Your task to perform on an android device: open app "Indeed Job Search" (install if not already installed) Image 0: 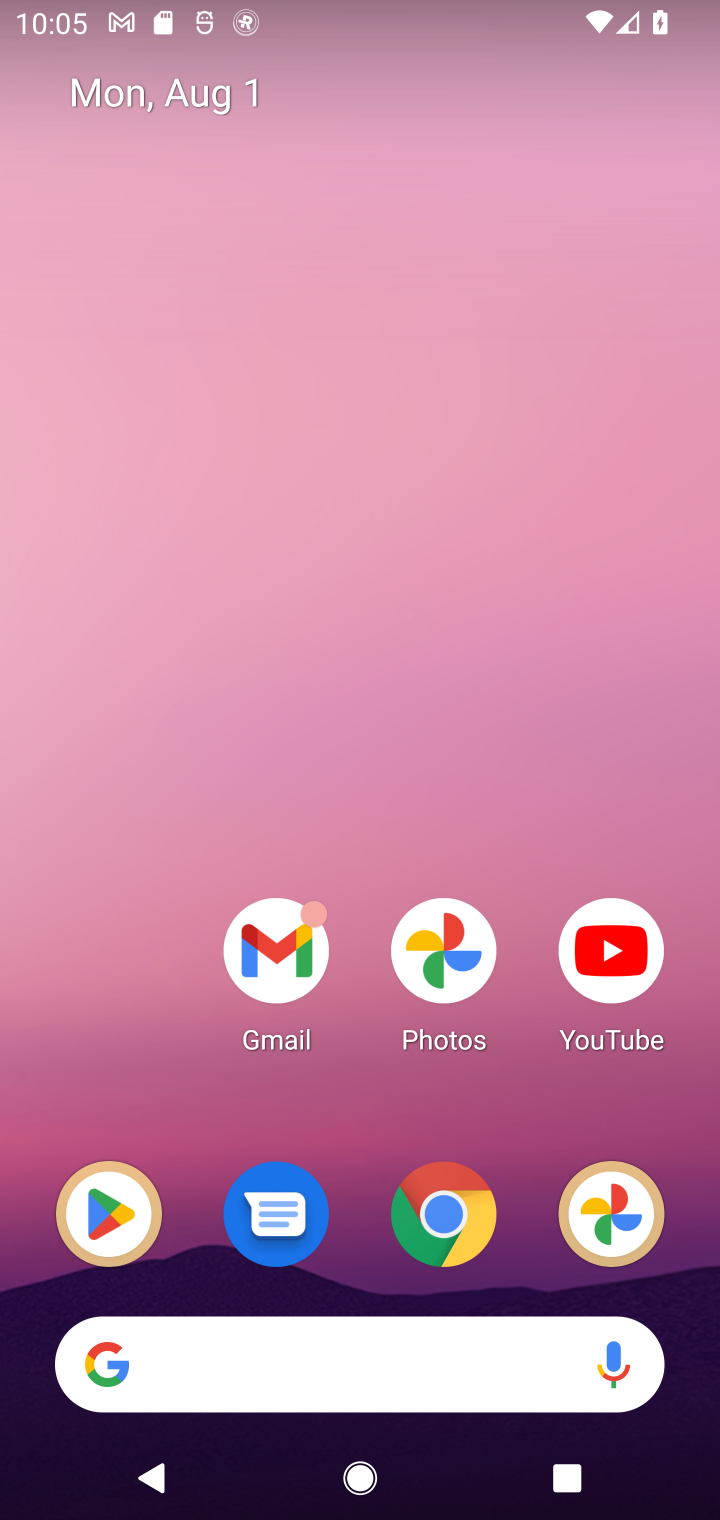
Step 0: click (111, 1223)
Your task to perform on an android device: open app "Indeed Job Search" (install if not already installed) Image 1: 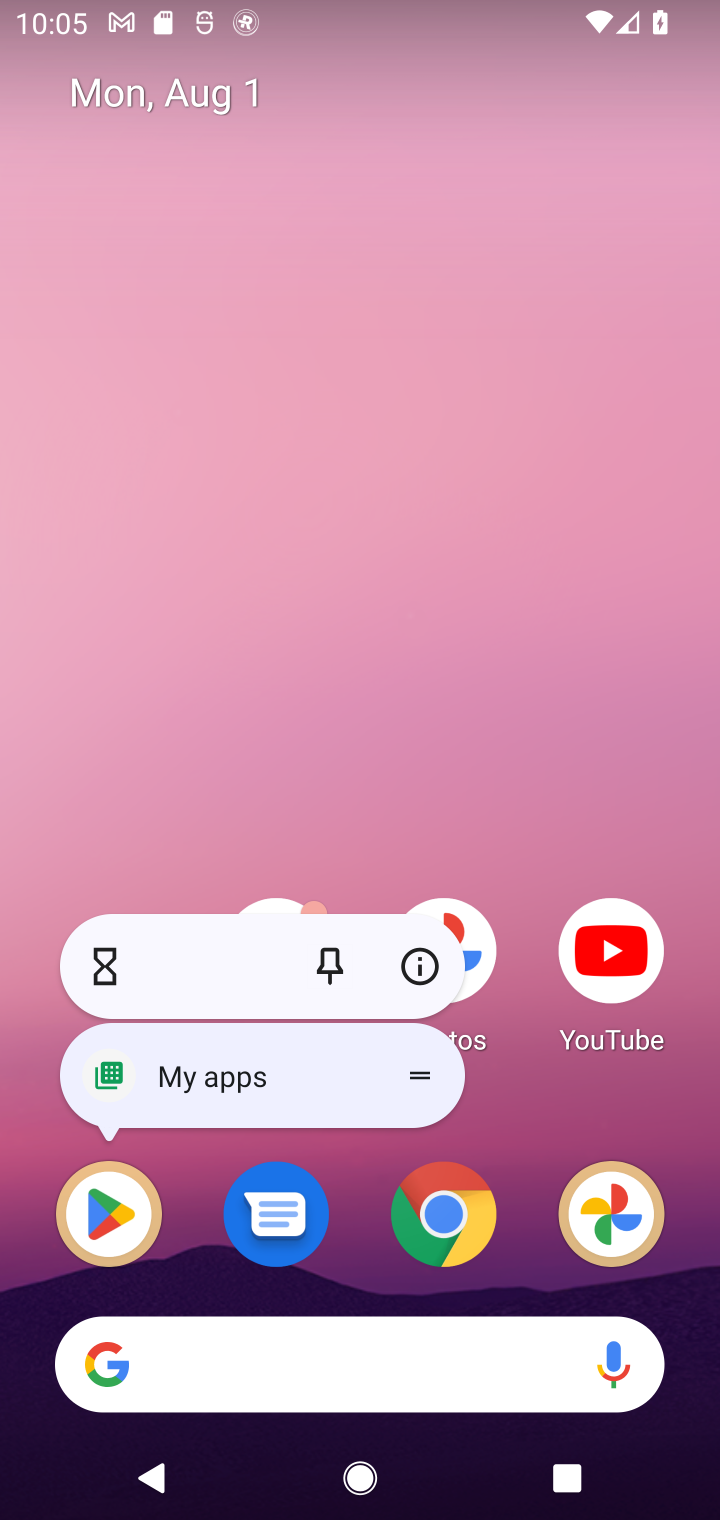
Step 1: click (111, 1223)
Your task to perform on an android device: open app "Indeed Job Search" (install if not already installed) Image 2: 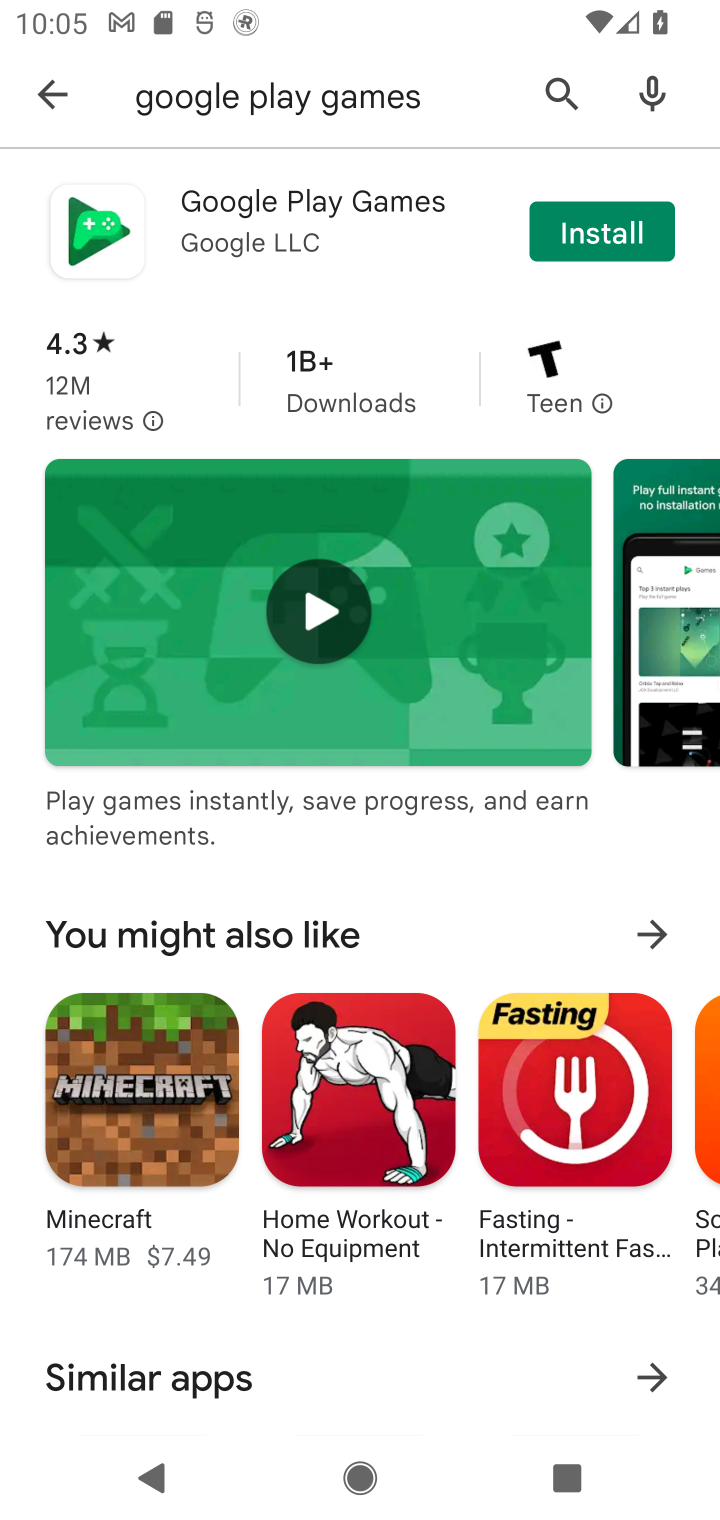
Step 2: click (563, 76)
Your task to perform on an android device: open app "Indeed Job Search" (install if not already installed) Image 3: 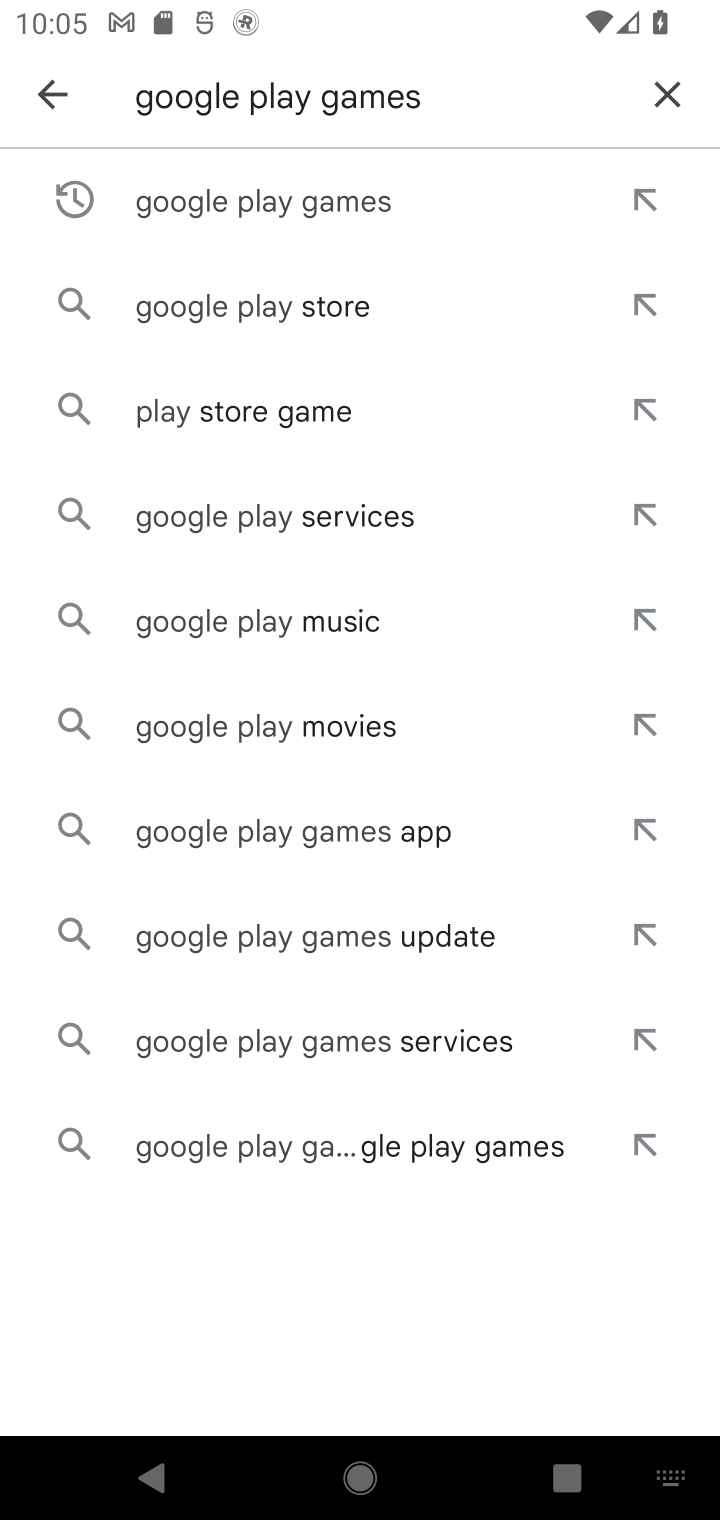
Step 3: click (652, 77)
Your task to perform on an android device: open app "Indeed Job Search" (install if not already installed) Image 4: 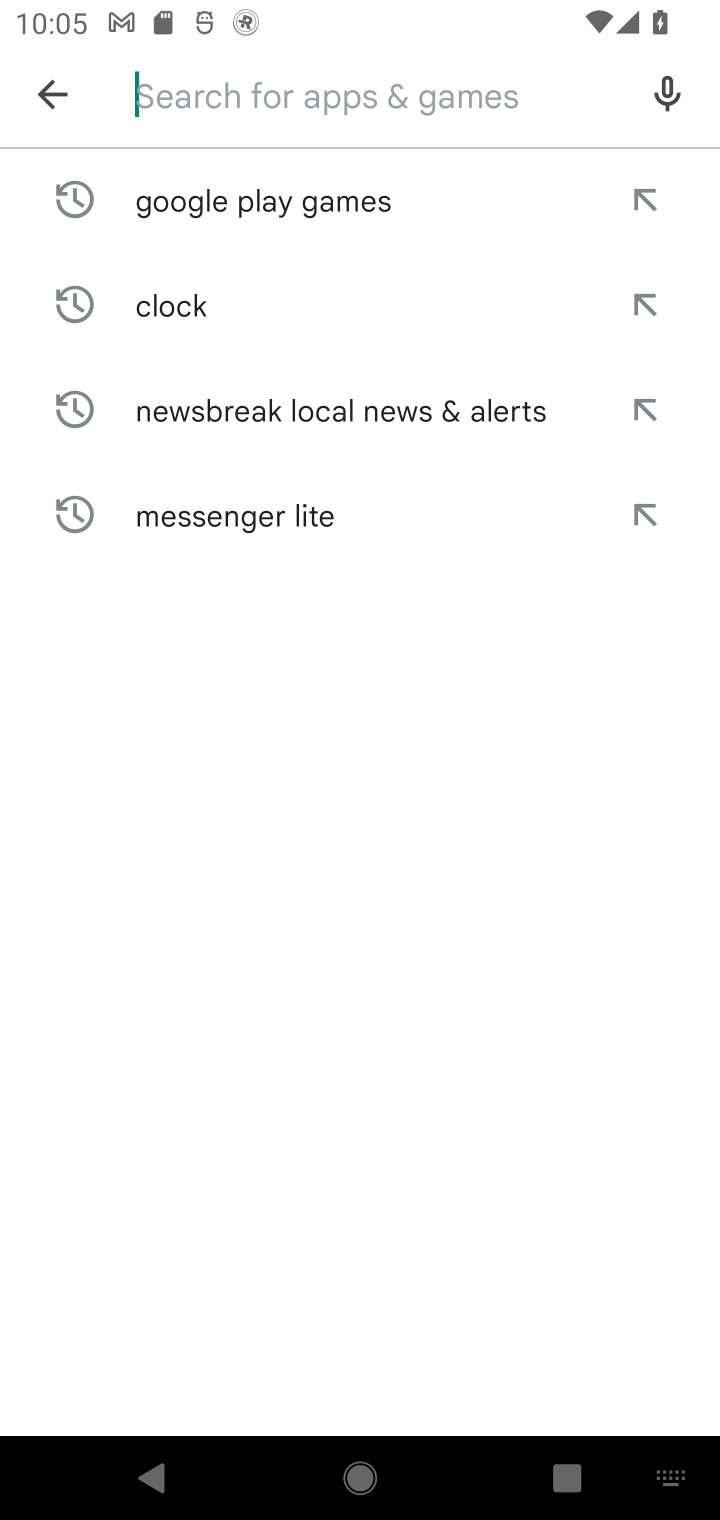
Step 4: type "Indeed Job Search"
Your task to perform on an android device: open app "Indeed Job Search" (install if not already installed) Image 5: 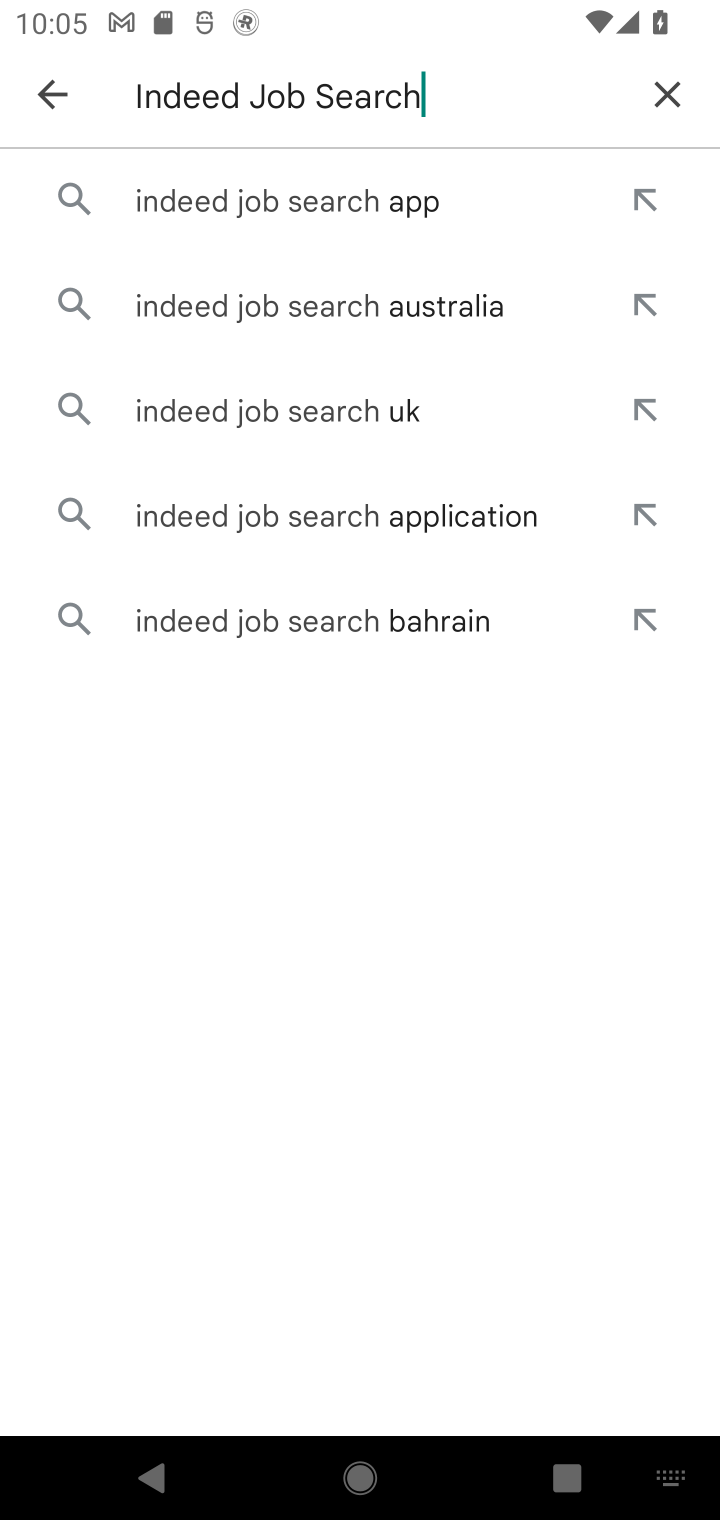
Step 5: click (185, 184)
Your task to perform on an android device: open app "Indeed Job Search" (install if not already installed) Image 6: 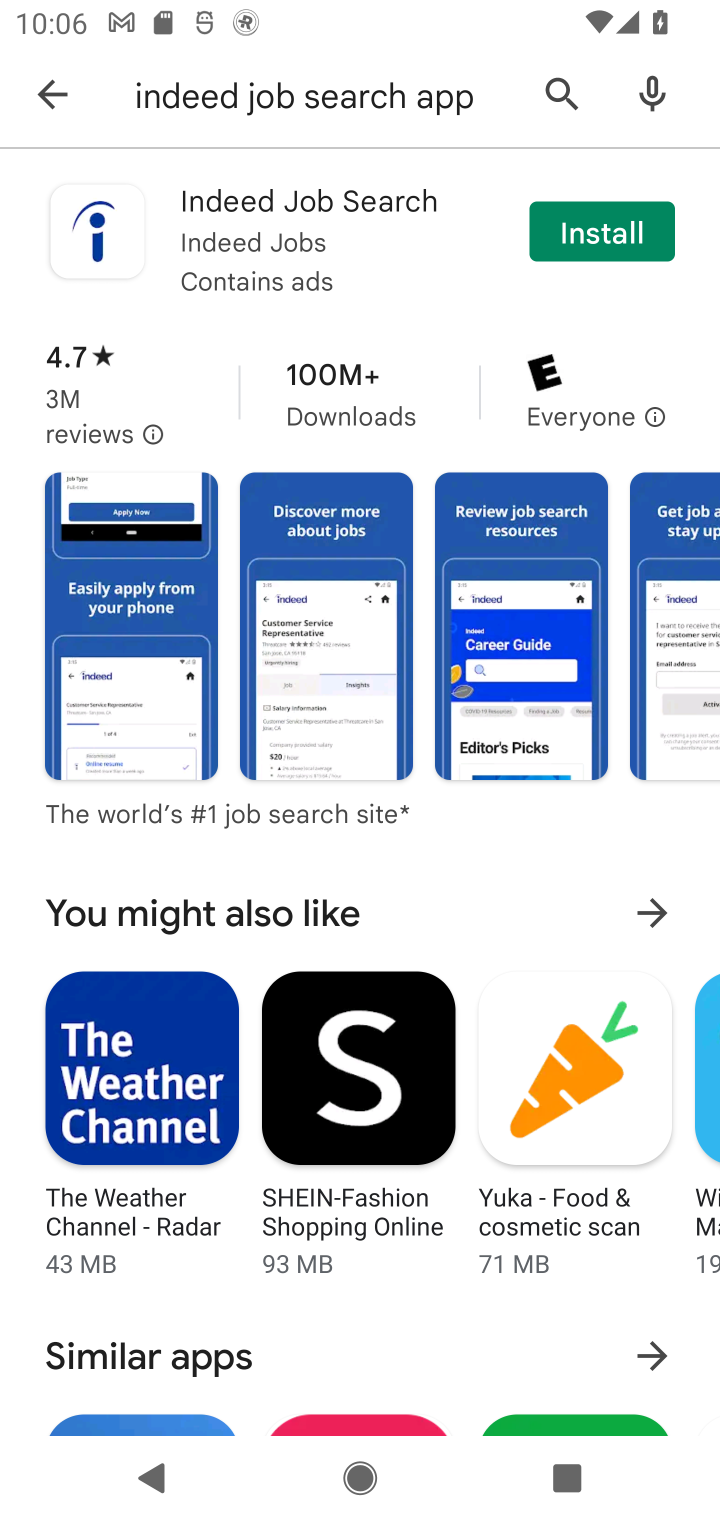
Step 6: click (578, 226)
Your task to perform on an android device: open app "Indeed Job Search" (install if not already installed) Image 7: 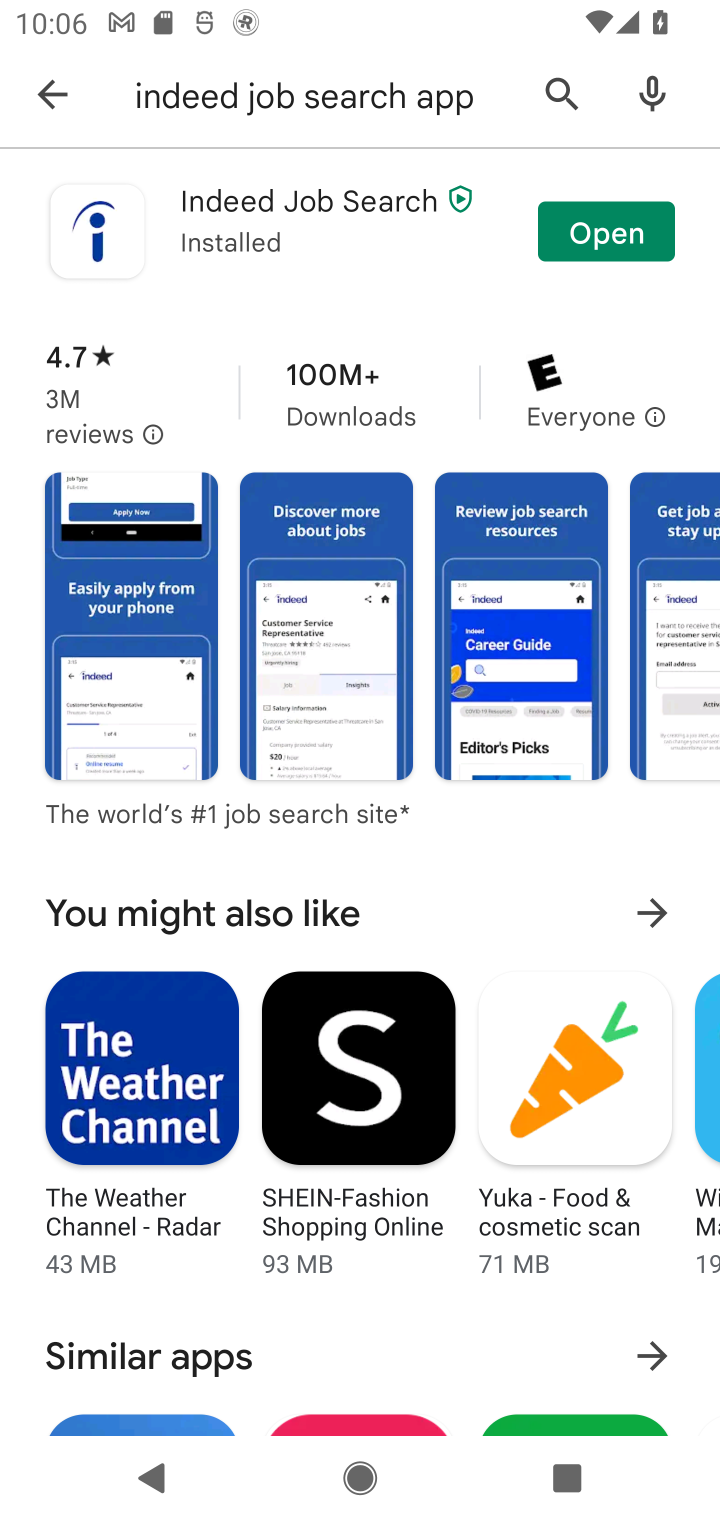
Step 7: click (578, 226)
Your task to perform on an android device: open app "Indeed Job Search" (install if not already installed) Image 8: 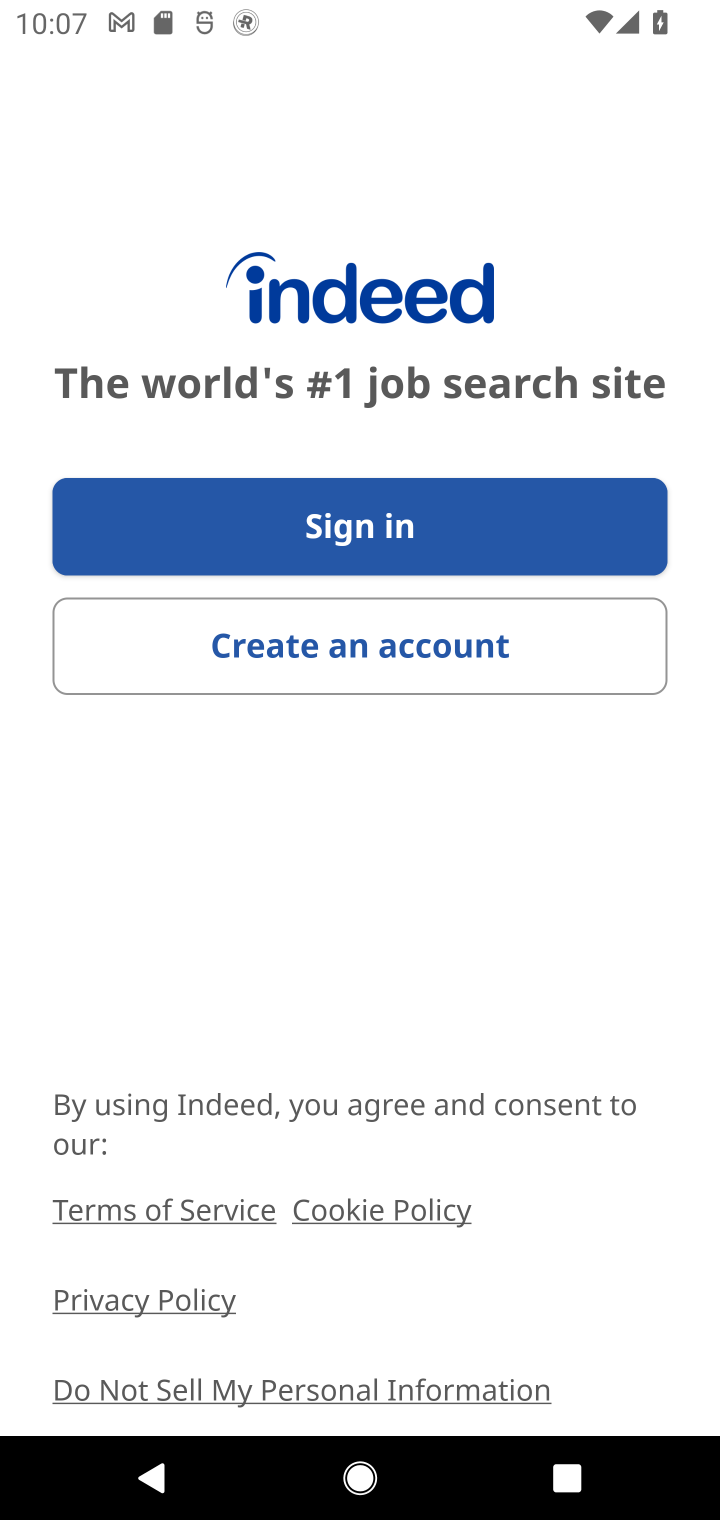
Step 8: task complete